Your task to perform on an android device: toggle data saver in the chrome app Image 0: 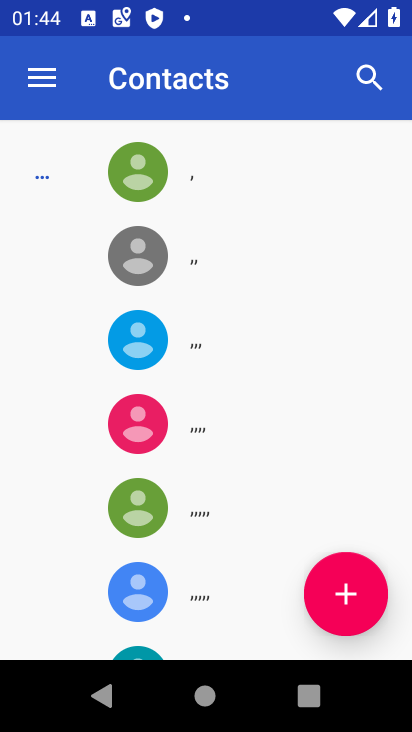
Step 0: press home button
Your task to perform on an android device: toggle data saver in the chrome app Image 1: 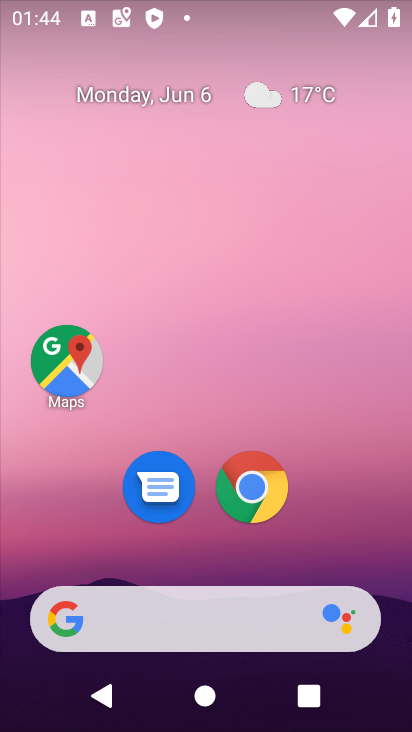
Step 1: click (256, 485)
Your task to perform on an android device: toggle data saver in the chrome app Image 2: 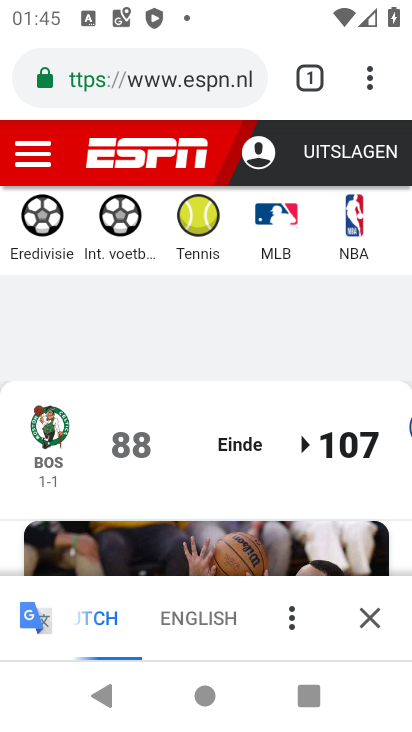
Step 2: click (368, 84)
Your task to perform on an android device: toggle data saver in the chrome app Image 3: 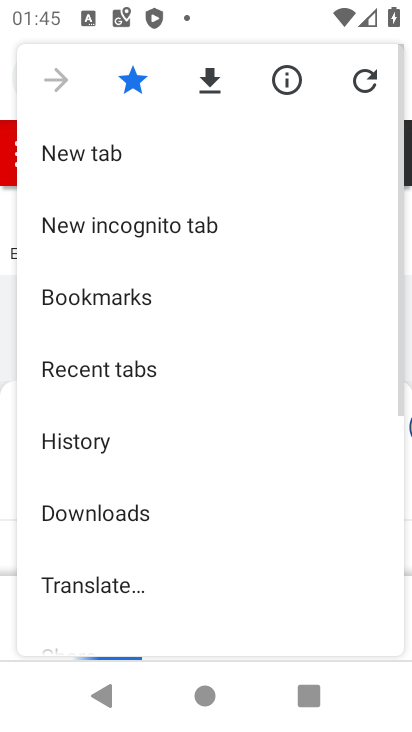
Step 3: drag from (187, 522) to (245, 111)
Your task to perform on an android device: toggle data saver in the chrome app Image 4: 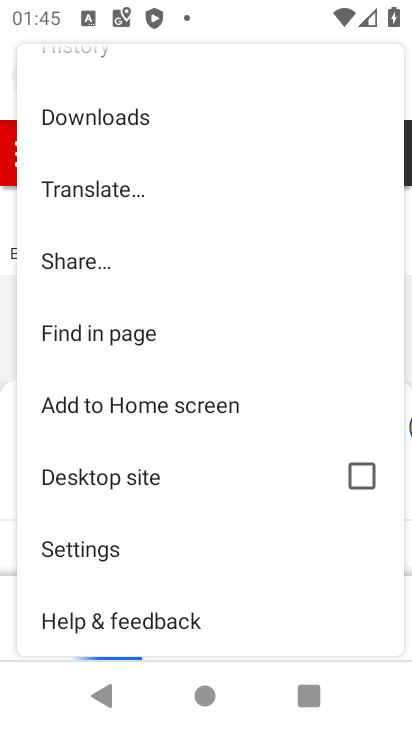
Step 4: click (101, 541)
Your task to perform on an android device: toggle data saver in the chrome app Image 5: 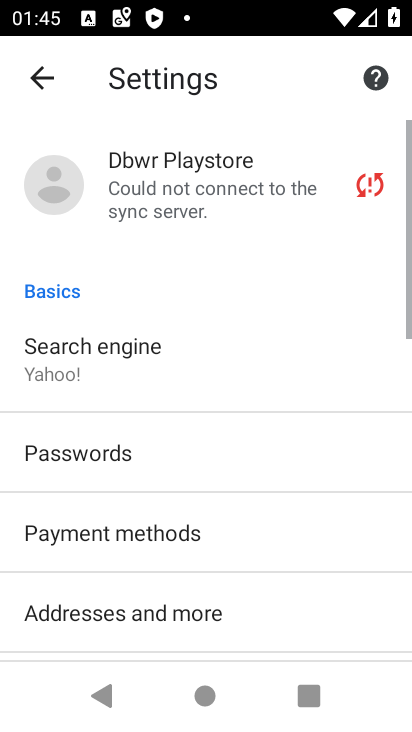
Step 5: drag from (226, 584) to (211, 157)
Your task to perform on an android device: toggle data saver in the chrome app Image 6: 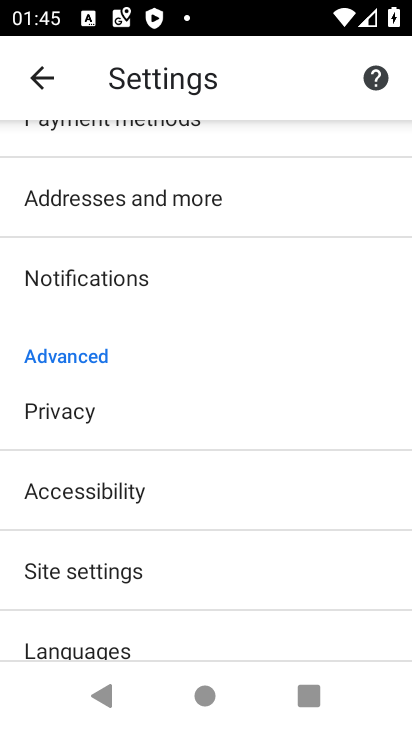
Step 6: drag from (195, 616) to (225, 288)
Your task to perform on an android device: toggle data saver in the chrome app Image 7: 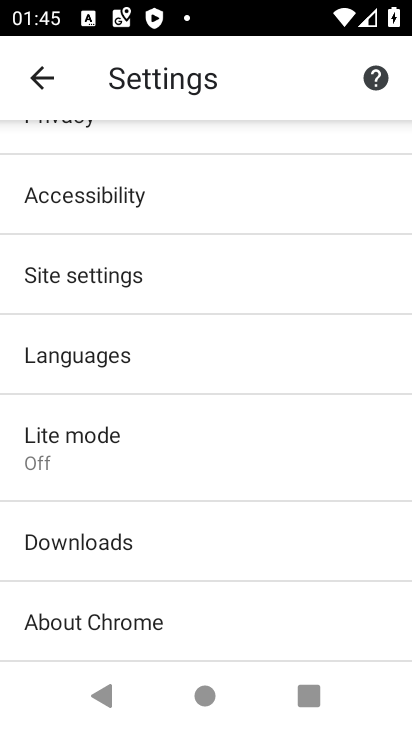
Step 7: click (76, 443)
Your task to perform on an android device: toggle data saver in the chrome app Image 8: 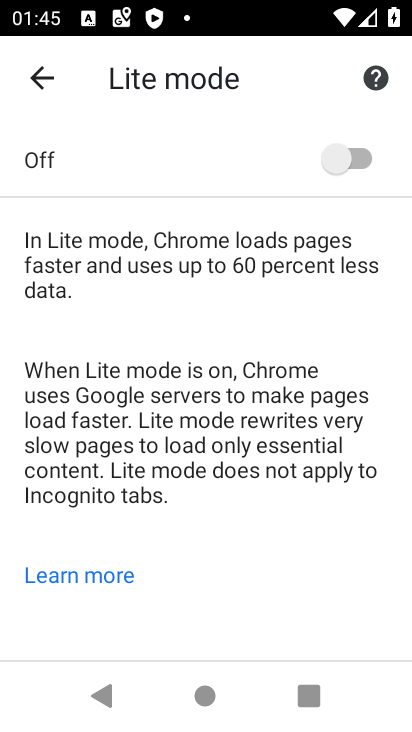
Step 8: click (363, 153)
Your task to perform on an android device: toggle data saver in the chrome app Image 9: 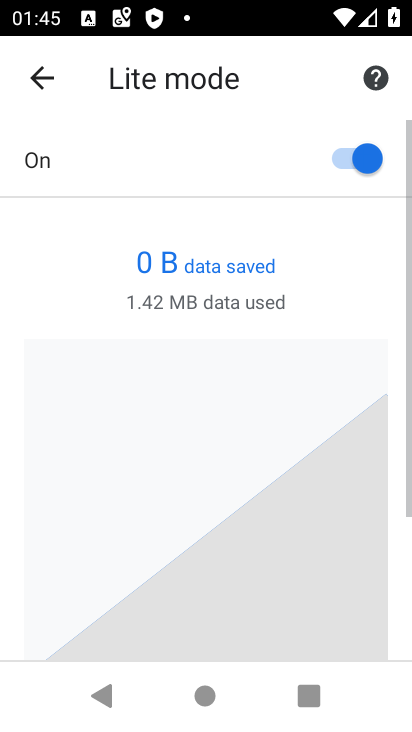
Step 9: task complete